Your task to perform on an android device: turn on wifi Image 0: 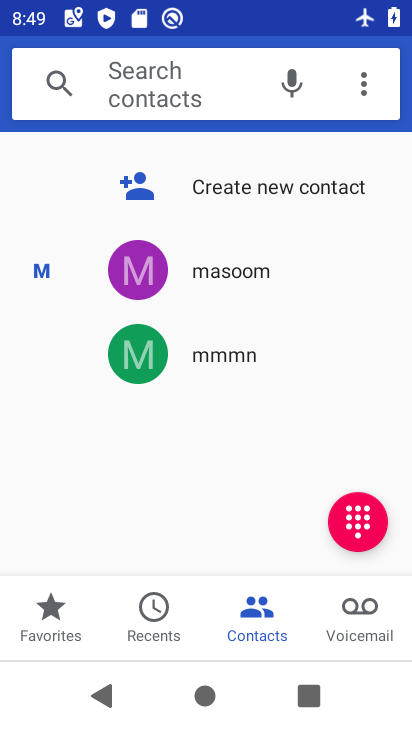
Step 0: press home button
Your task to perform on an android device: turn on wifi Image 1: 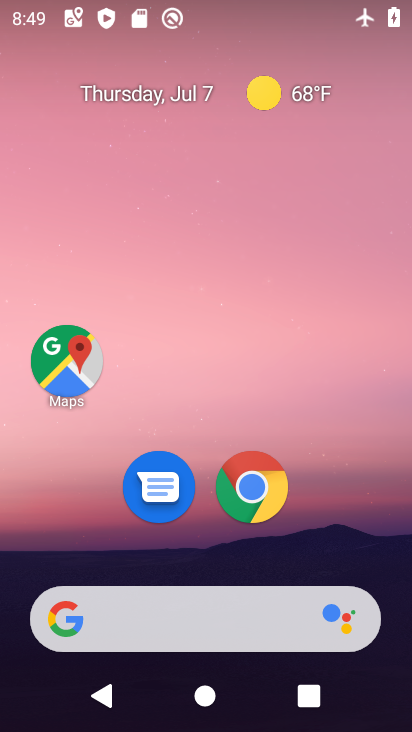
Step 1: drag from (231, 559) to (407, 388)
Your task to perform on an android device: turn on wifi Image 2: 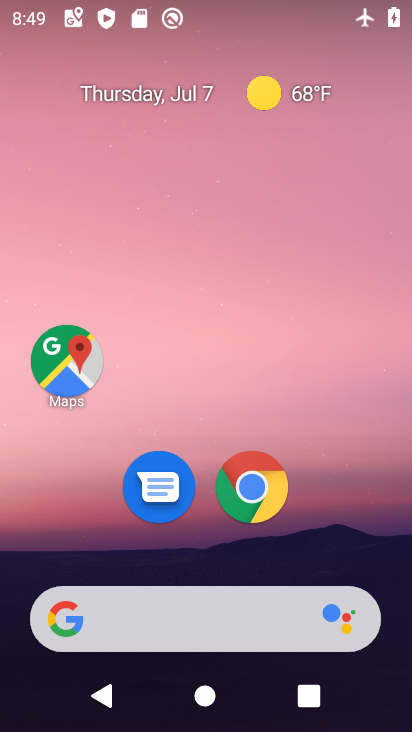
Step 2: drag from (198, 582) to (197, 0)
Your task to perform on an android device: turn on wifi Image 3: 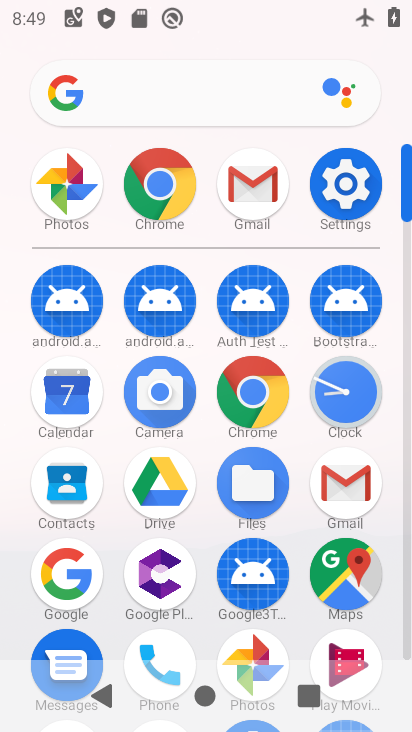
Step 3: click (350, 159)
Your task to perform on an android device: turn on wifi Image 4: 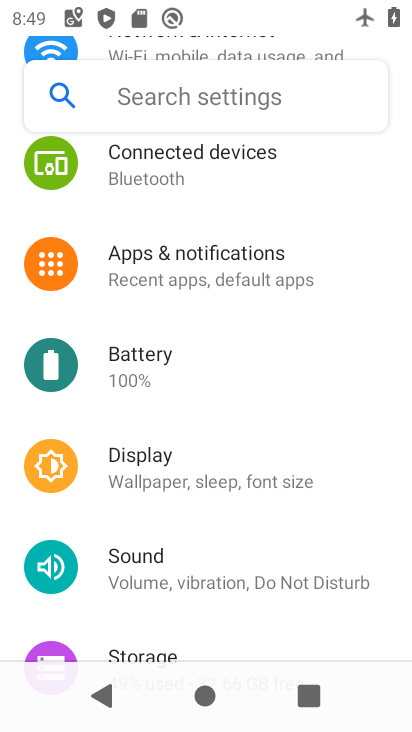
Step 4: drag from (242, 198) to (259, 522)
Your task to perform on an android device: turn on wifi Image 5: 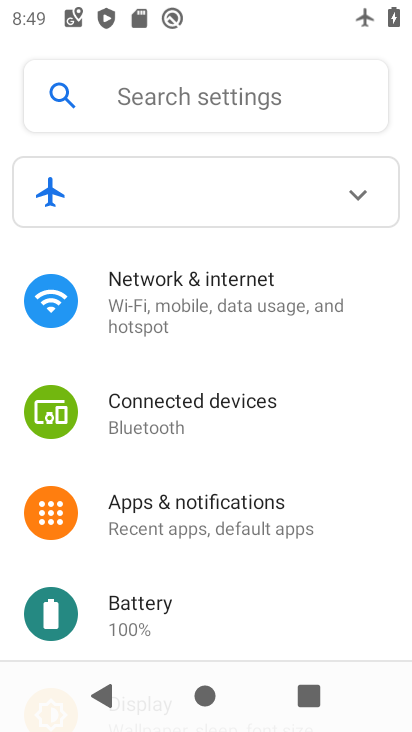
Step 5: click (208, 314)
Your task to perform on an android device: turn on wifi Image 6: 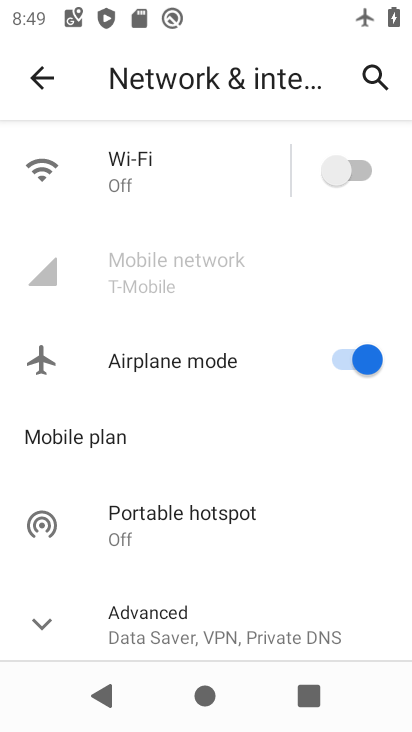
Step 6: click (361, 179)
Your task to perform on an android device: turn on wifi Image 7: 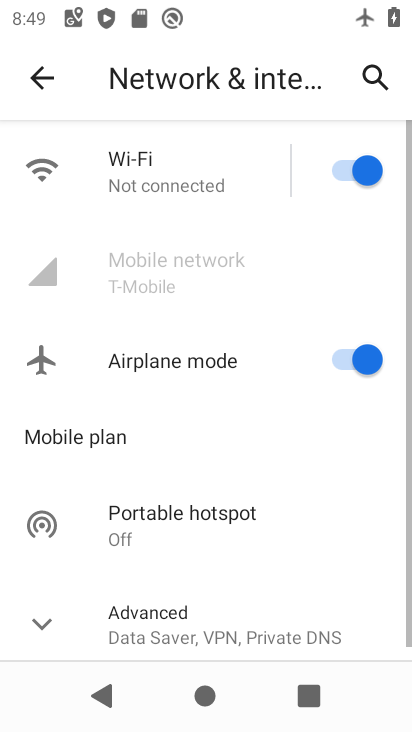
Step 7: task complete